Your task to perform on an android device: Search for Italian restaurants on Maps Image 0: 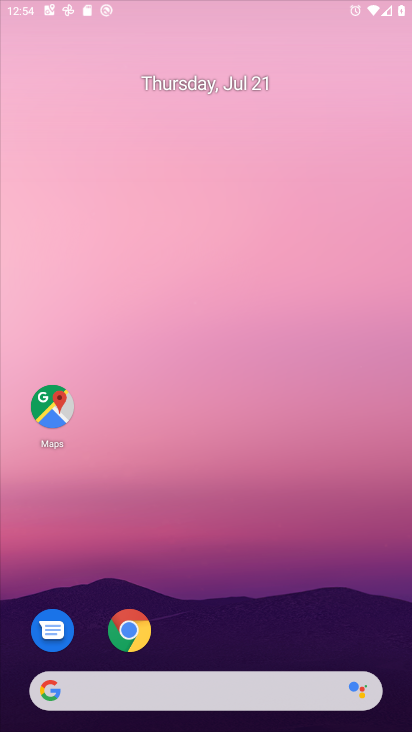
Step 0: drag from (193, 649) to (281, 120)
Your task to perform on an android device: Search for Italian restaurants on Maps Image 1: 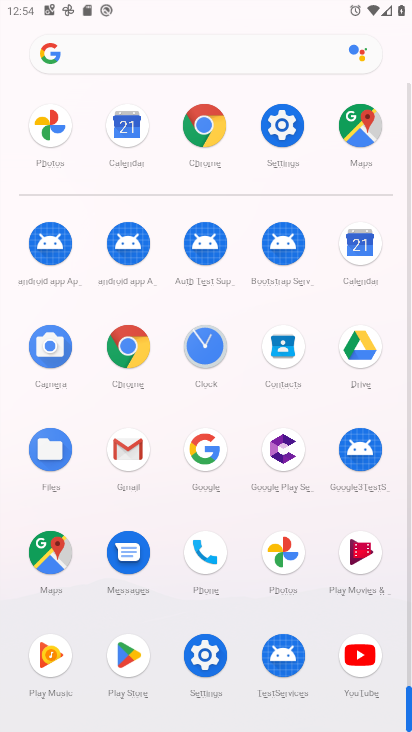
Step 1: click (52, 553)
Your task to perform on an android device: Search for Italian restaurants on Maps Image 2: 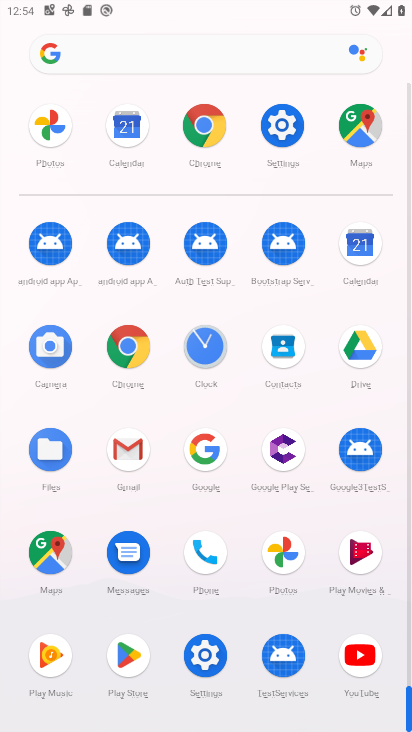
Step 2: click (52, 553)
Your task to perform on an android device: Search for Italian restaurants on Maps Image 3: 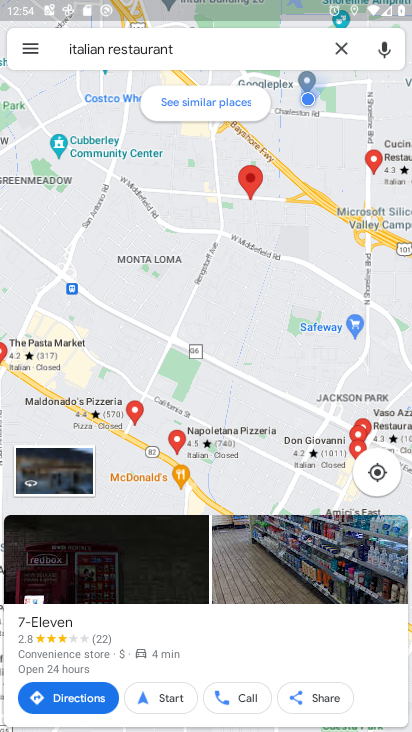
Step 3: task complete